Your task to perform on an android device: change notifications settings Image 0: 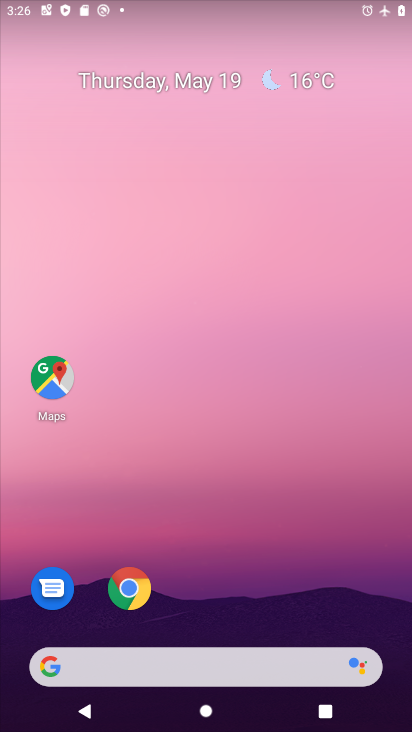
Step 0: click (267, 548)
Your task to perform on an android device: change notifications settings Image 1: 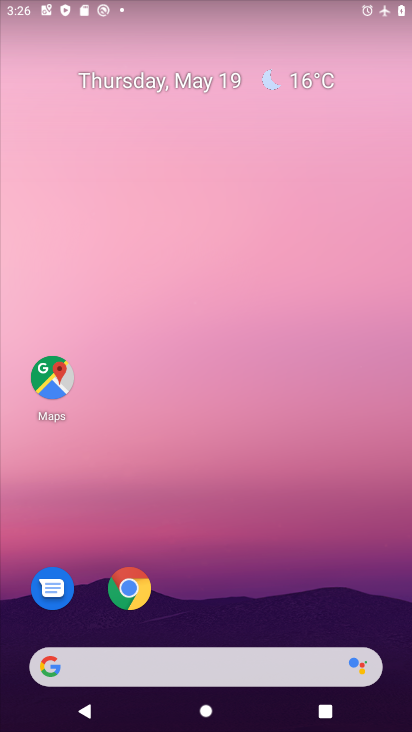
Step 1: drag from (274, 522) to (254, 149)
Your task to perform on an android device: change notifications settings Image 2: 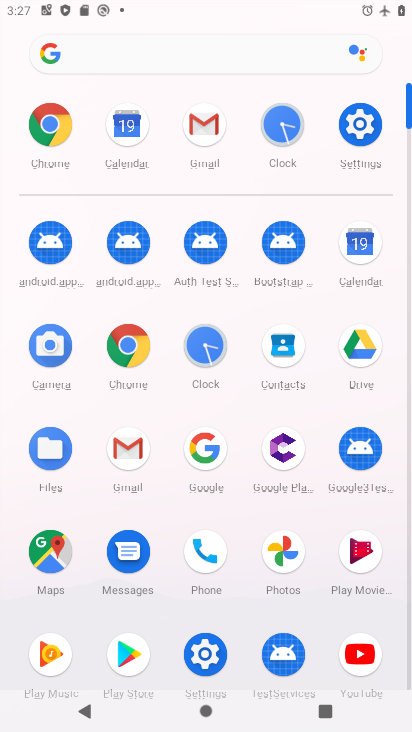
Step 2: click (363, 129)
Your task to perform on an android device: change notifications settings Image 3: 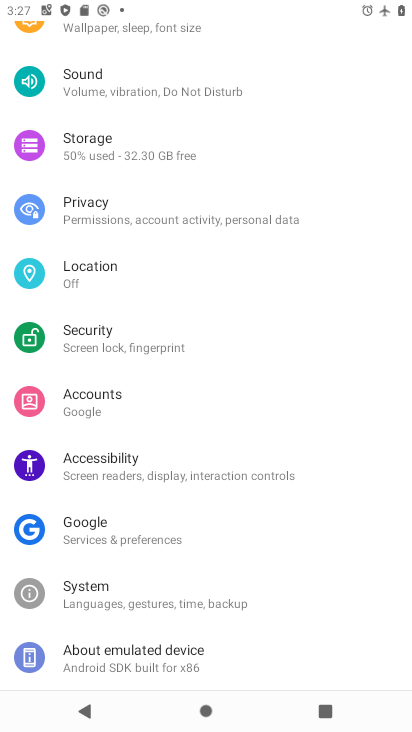
Step 3: drag from (181, 205) to (167, 463)
Your task to perform on an android device: change notifications settings Image 4: 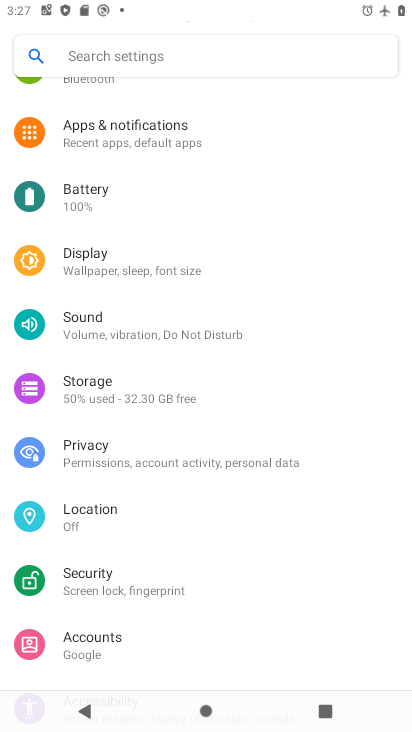
Step 4: click (130, 135)
Your task to perform on an android device: change notifications settings Image 5: 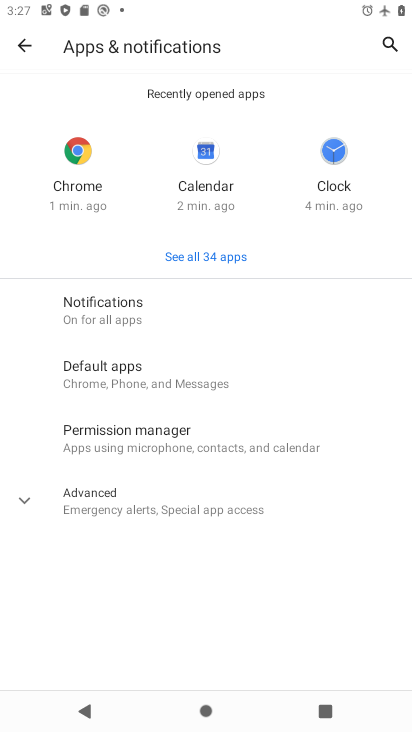
Step 5: click (142, 299)
Your task to perform on an android device: change notifications settings Image 6: 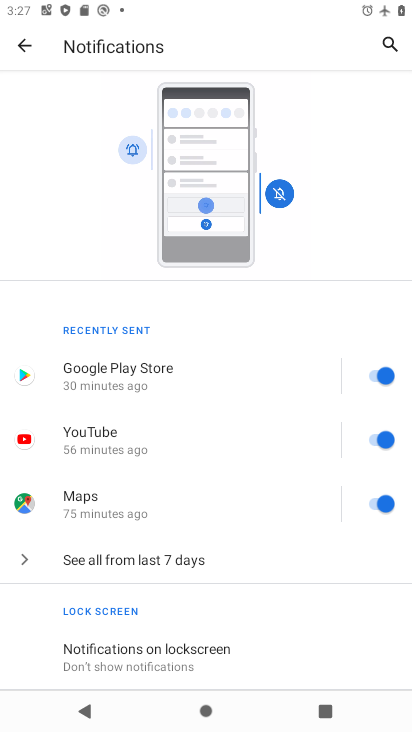
Step 6: drag from (262, 541) to (272, 89)
Your task to perform on an android device: change notifications settings Image 7: 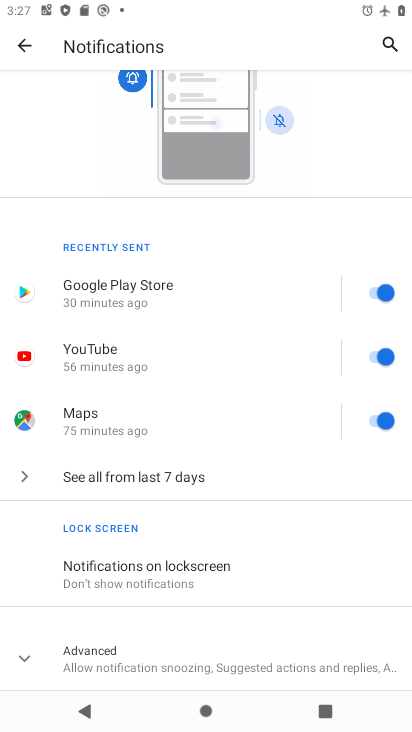
Step 7: click (189, 671)
Your task to perform on an android device: change notifications settings Image 8: 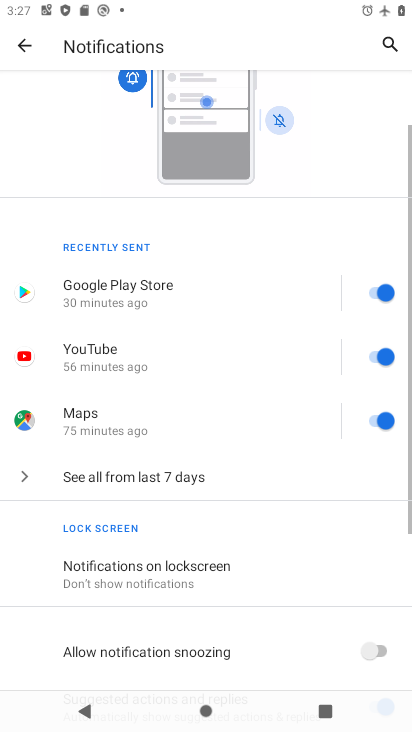
Step 8: drag from (212, 637) to (230, 234)
Your task to perform on an android device: change notifications settings Image 9: 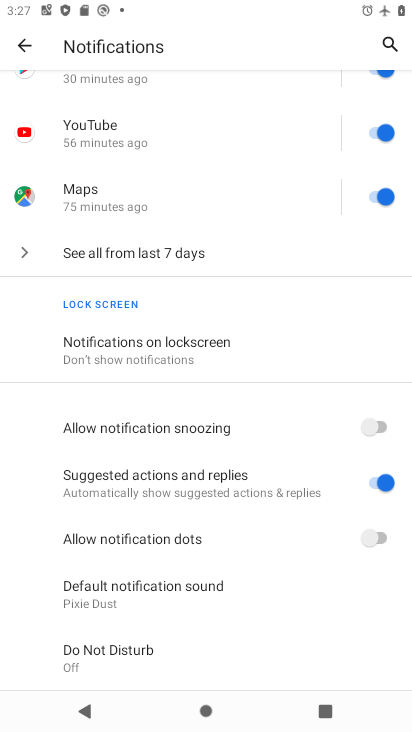
Step 9: click (385, 427)
Your task to perform on an android device: change notifications settings Image 10: 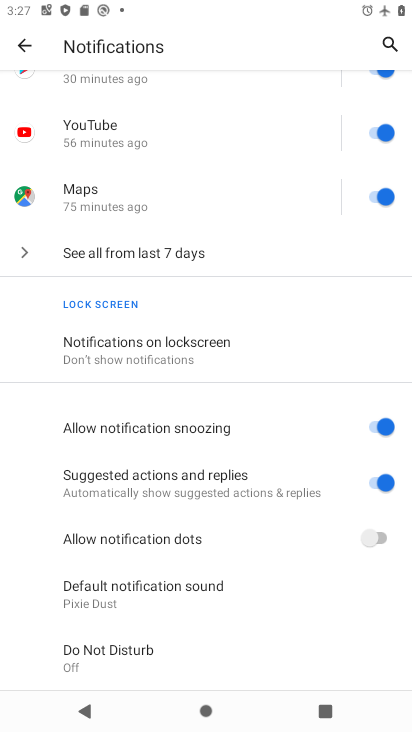
Step 10: task complete